Your task to perform on an android device: Open wifi settings Image 0: 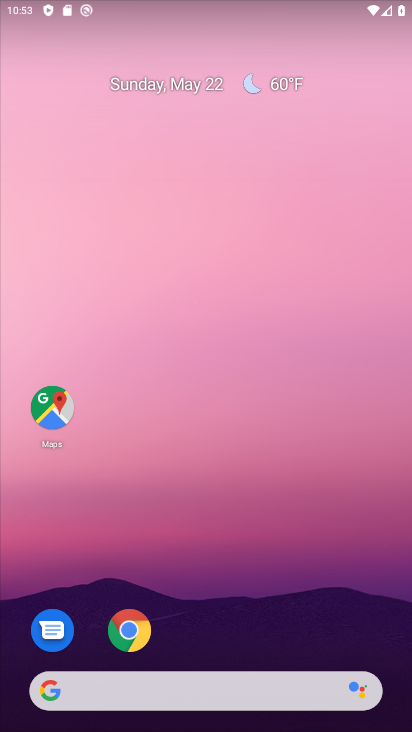
Step 0: drag from (236, 603) to (174, 77)
Your task to perform on an android device: Open wifi settings Image 1: 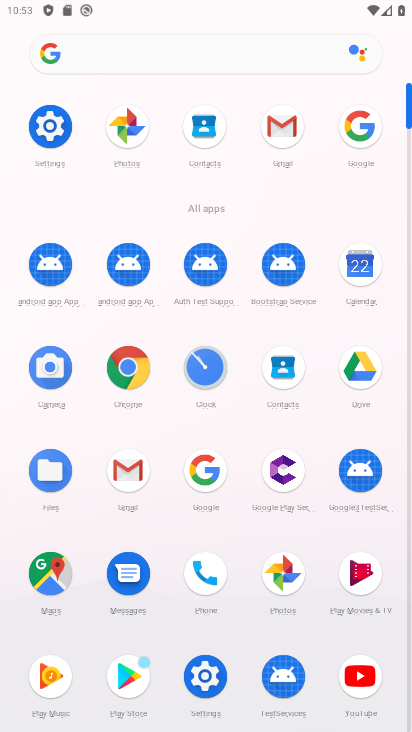
Step 1: click (47, 125)
Your task to perform on an android device: Open wifi settings Image 2: 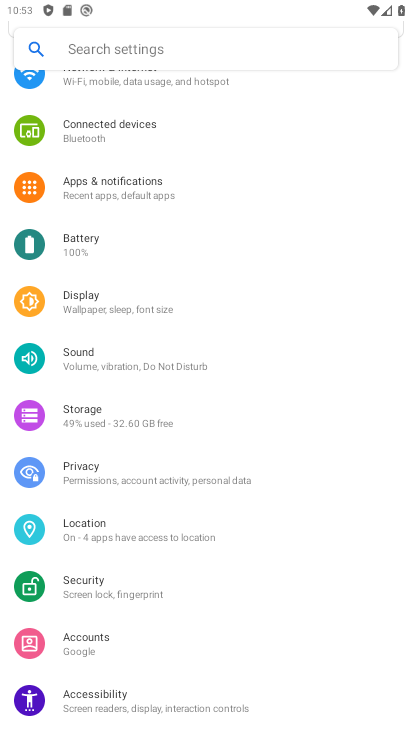
Step 2: drag from (154, 154) to (164, 276)
Your task to perform on an android device: Open wifi settings Image 3: 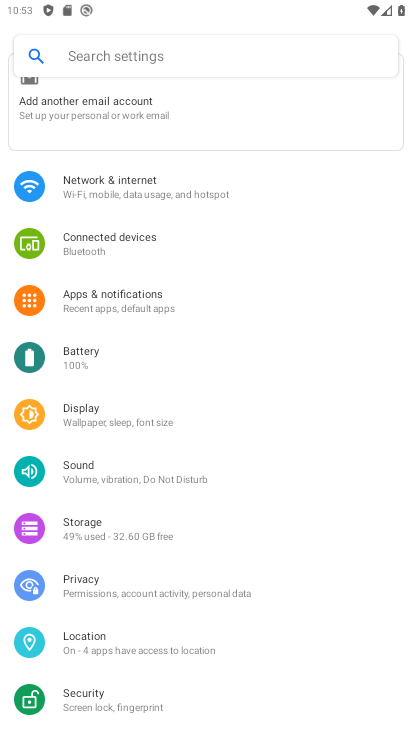
Step 3: click (106, 188)
Your task to perform on an android device: Open wifi settings Image 4: 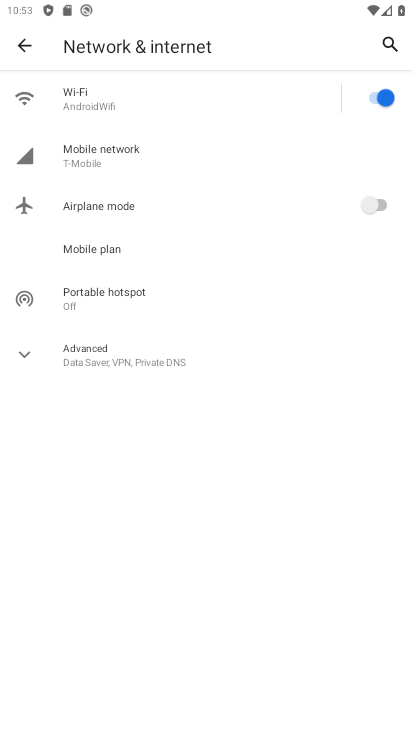
Step 4: click (88, 100)
Your task to perform on an android device: Open wifi settings Image 5: 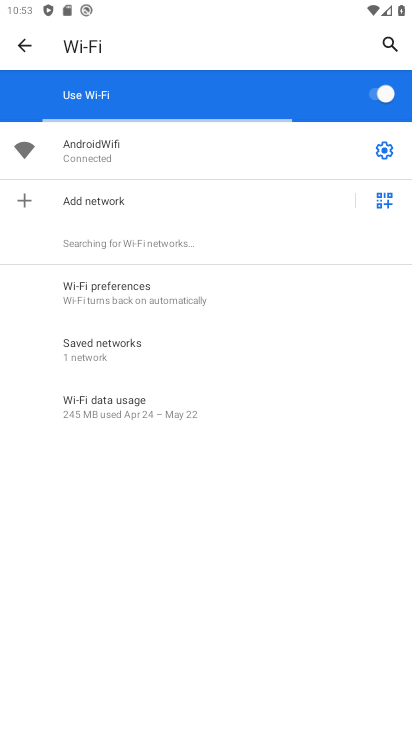
Step 5: click (385, 147)
Your task to perform on an android device: Open wifi settings Image 6: 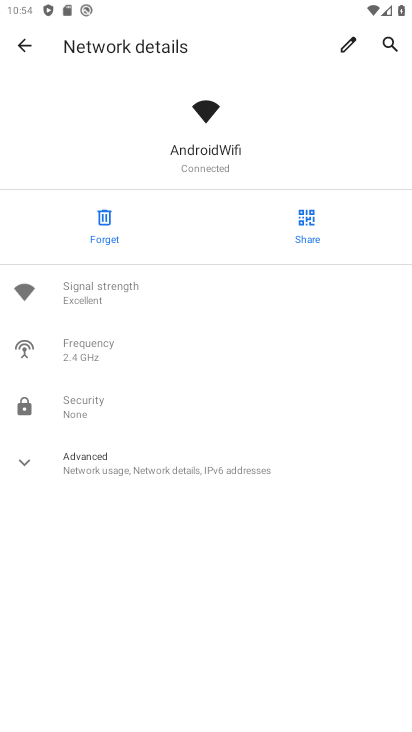
Step 6: task complete